Your task to perform on an android device: toggle pop-ups in chrome Image 0: 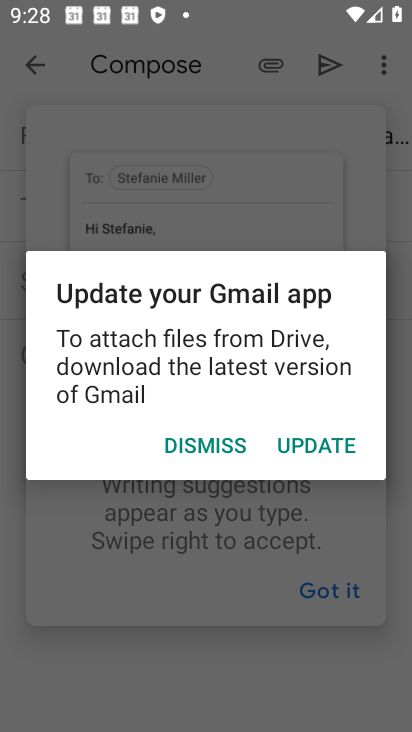
Step 0: press home button
Your task to perform on an android device: toggle pop-ups in chrome Image 1: 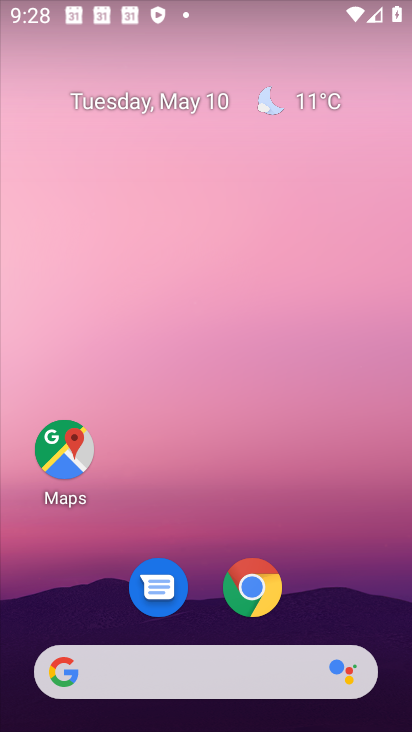
Step 1: drag from (380, 554) to (338, 126)
Your task to perform on an android device: toggle pop-ups in chrome Image 2: 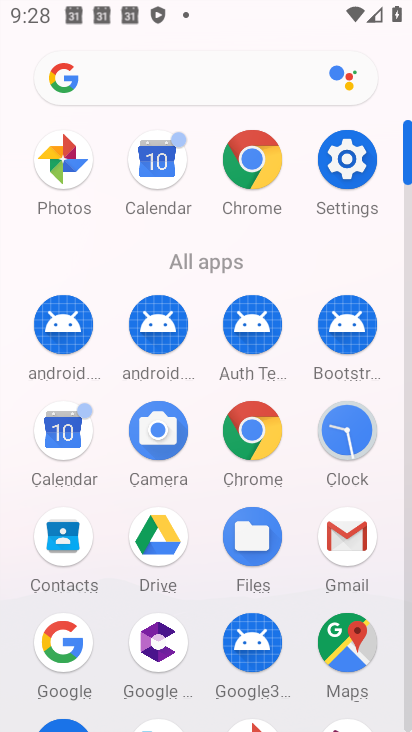
Step 2: click (253, 165)
Your task to perform on an android device: toggle pop-ups in chrome Image 3: 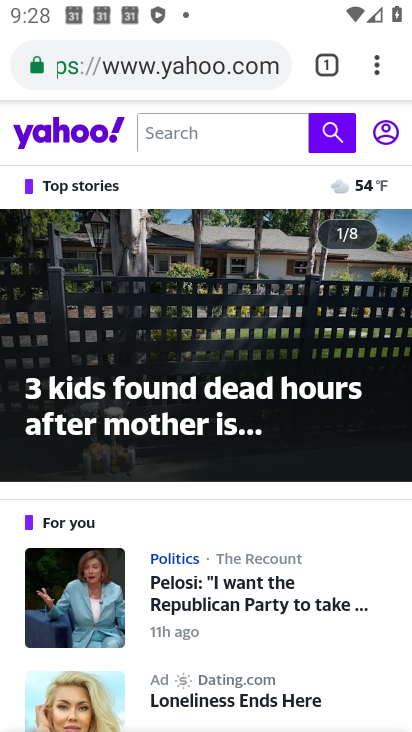
Step 3: drag from (381, 75) to (311, 641)
Your task to perform on an android device: toggle pop-ups in chrome Image 4: 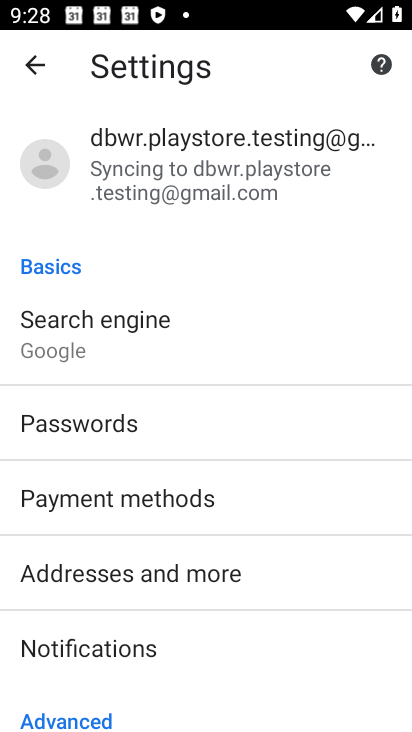
Step 4: drag from (304, 674) to (351, 240)
Your task to perform on an android device: toggle pop-ups in chrome Image 5: 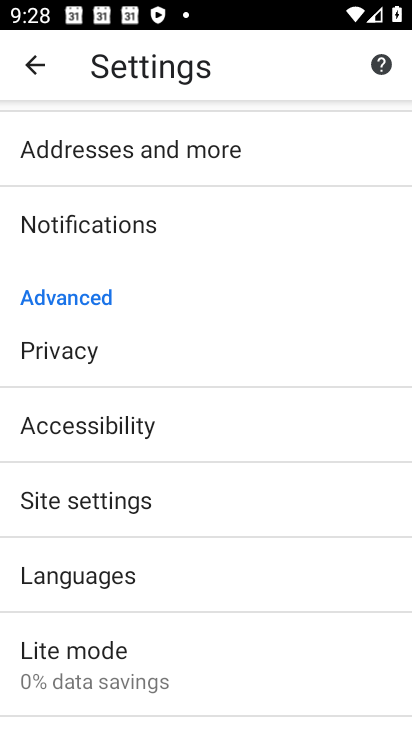
Step 5: click (213, 499)
Your task to perform on an android device: toggle pop-ups in chrome Image 6: 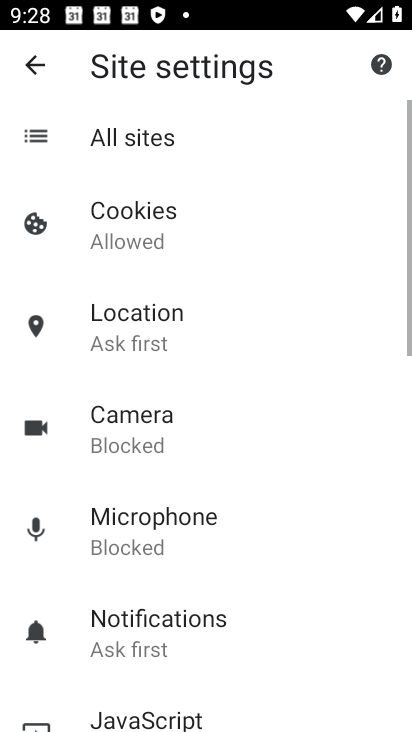
Step 6: drag from (285, 671) to (296, 243)
Your task to perform on an android device: toggle pop-ups in chrome Image 7: 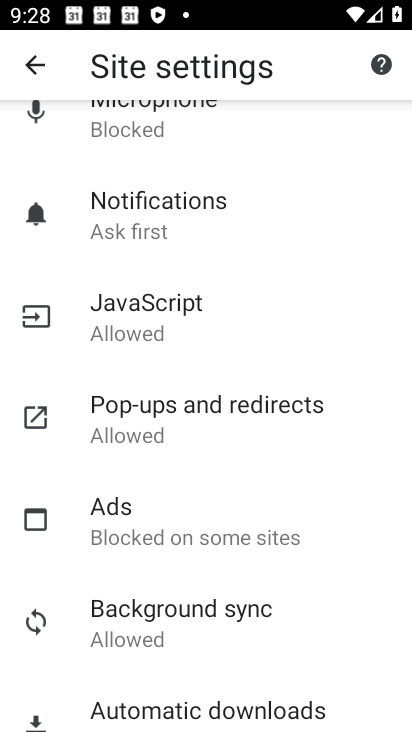
Step 7: click (280, 419)
Your task to perform on an android device: toggle pop-ups in chrome Image 8: 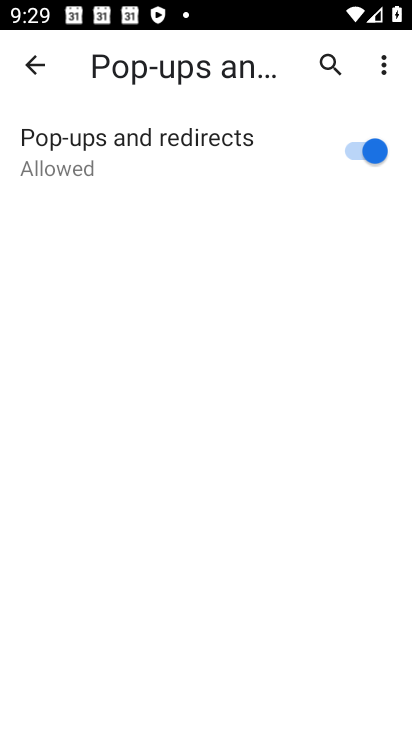
Step 8: click (355, 151)
Your task to perform on an android device: toggle pop-ups in chrome Image 9: 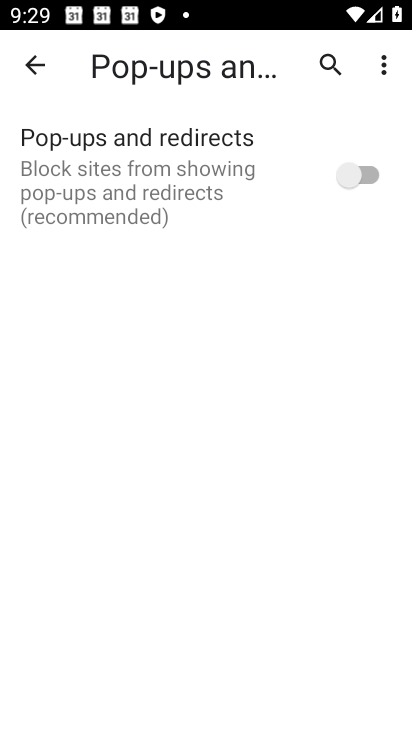
Step 9: task complete